Your task to perform on an android device: turn on bluetooth scan Image 0: 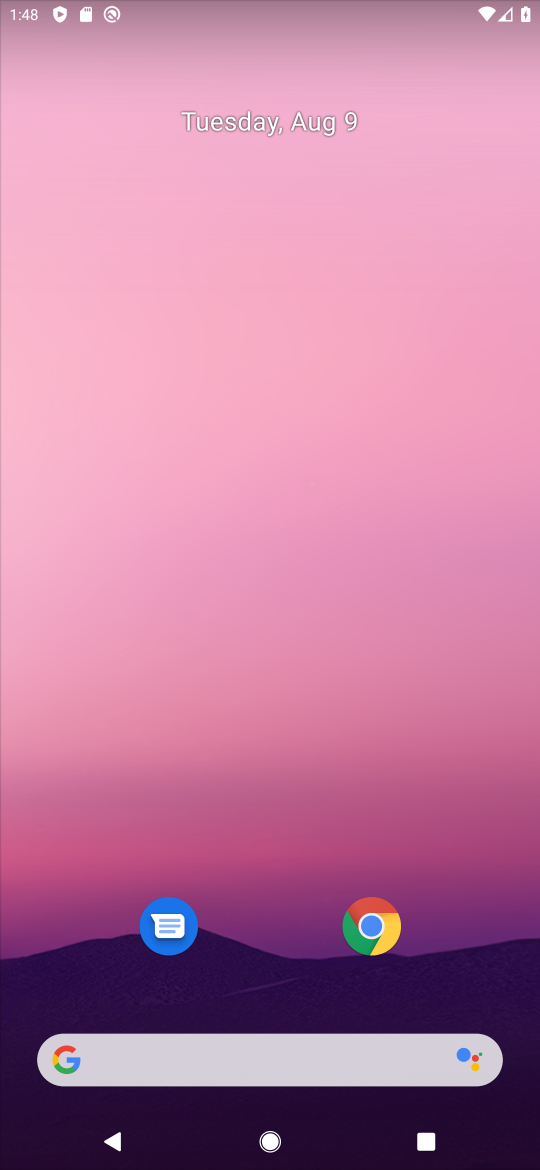
Step 0: click (331, 476)
Your task to perform on an android device: turn on bluetooth scan Image 1: 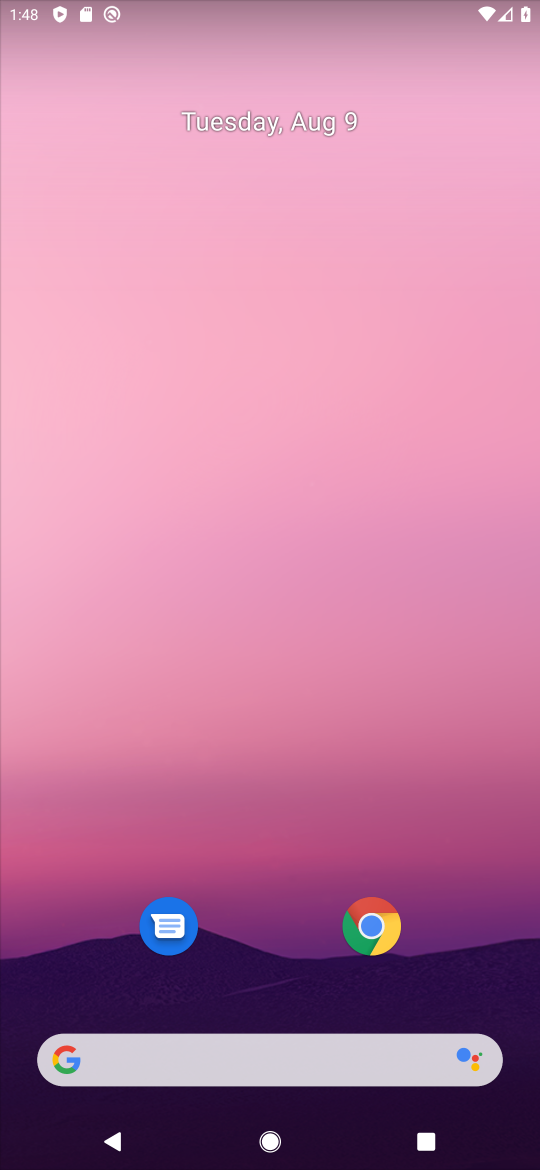
Step 1: drag from (275, 1013) to (317, 706)
Your task to perform on an android device: turn on bluetooth scan Image 2: 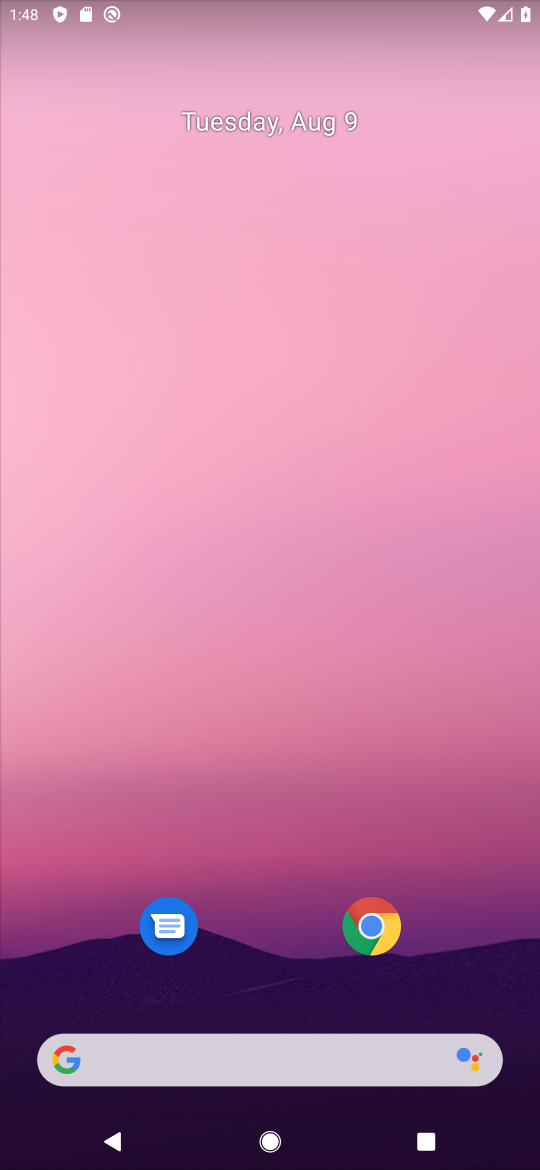
Step 2: drag from (222, 807) to (258, 317)
Your task to perform on an android device: turn on bluetooth scan Image 3: 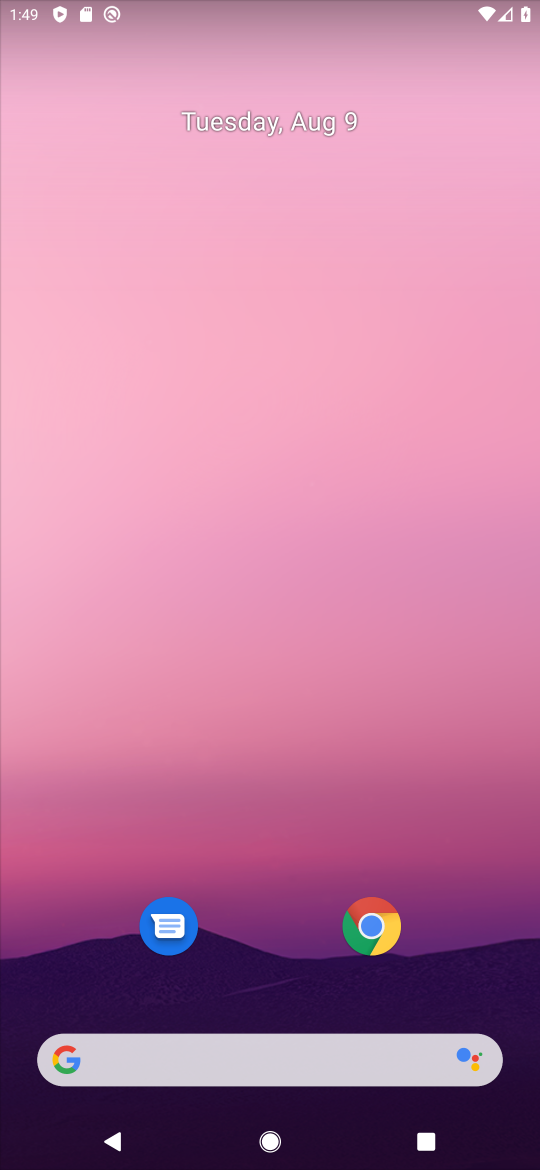
Step 3: drag from (252, 875) to (245, 306)
Your task to perform on an android device: turn on bluetooth scan Image 4: 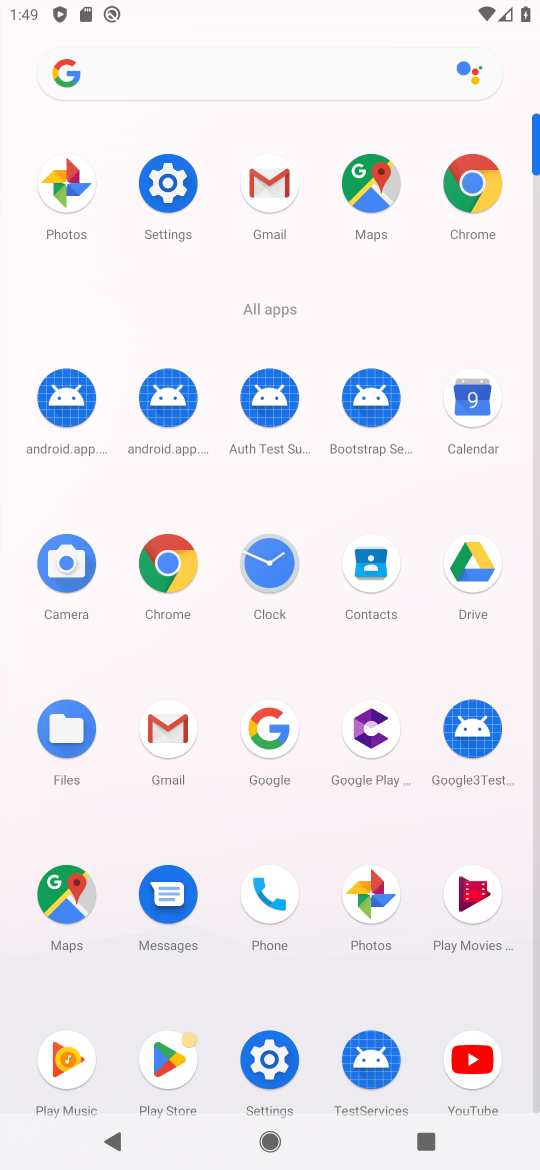
Step 4: click (262, 1045)
Your task to perform on an android device: turn on bluetooth scan Image 5: 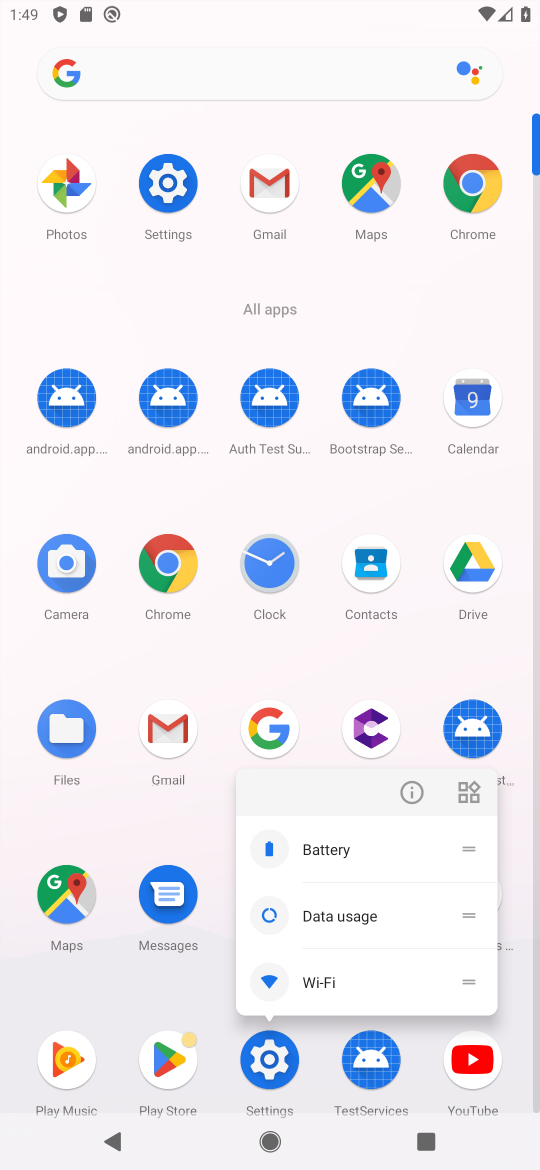
Step 5: click (262, 1045)
Your task to perform on an android device: turn on bluetooth scan Image 6: 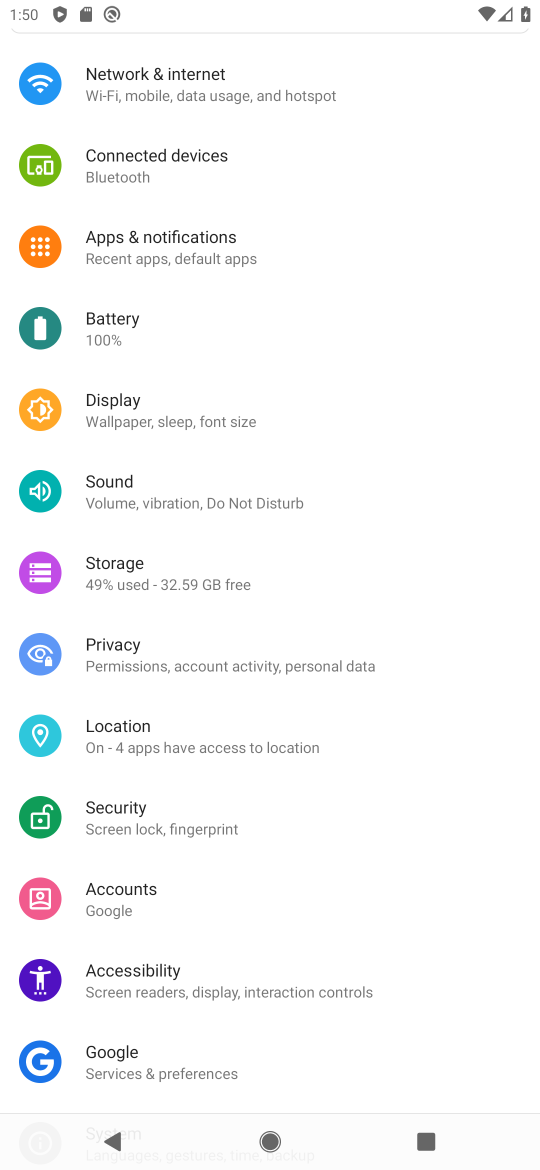
Step 6: drag from (312, 953) to (326, 261)
Your task to perform on an android device: turn on bluetooth scan Image 7: 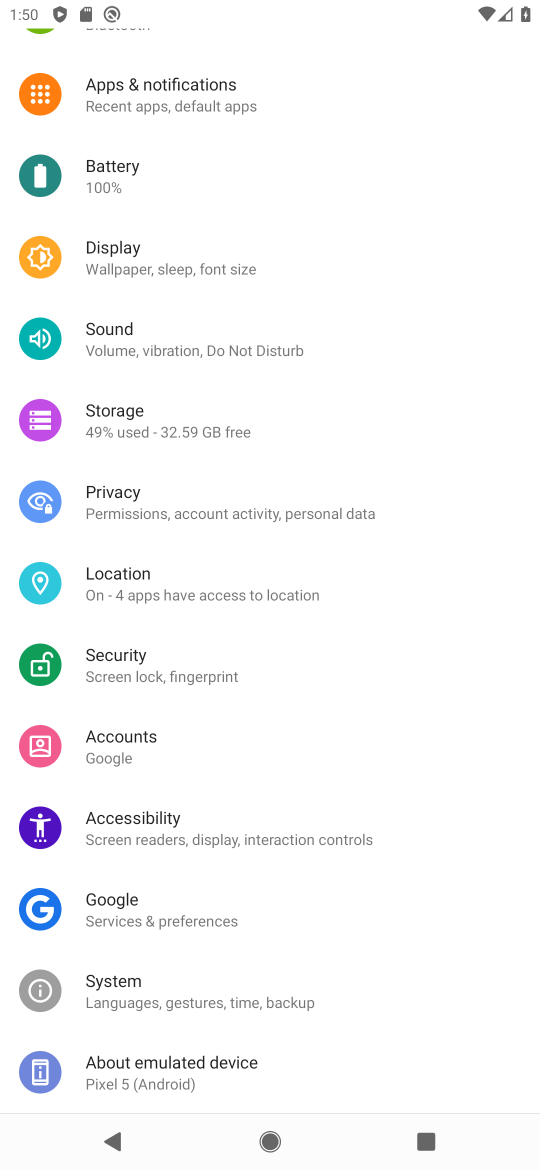
Step 7: click (215, 562)
Your task to perform on an android device: turn on bluetooth scan Image 8: 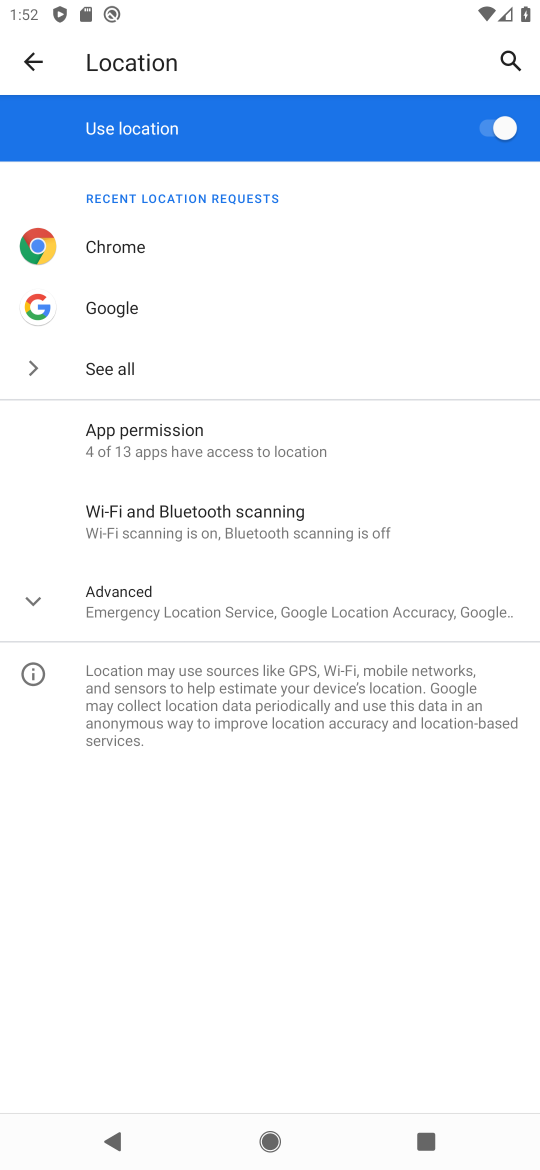
Step 8: click (253, 544)
Your task to perform on an android device: turn on bluetooth scan Image 9: 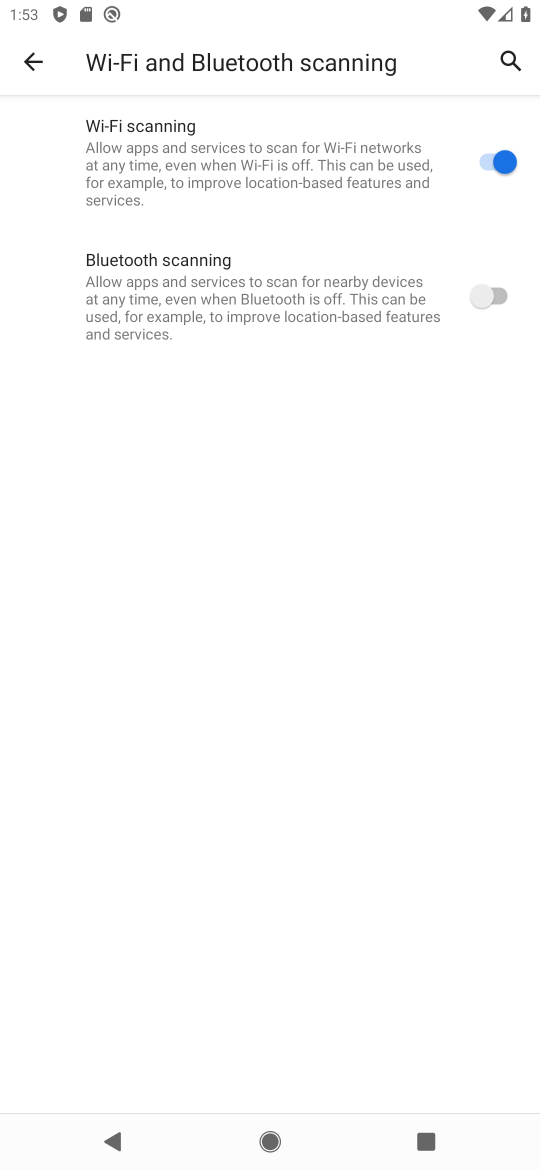
Step 9: click (381, 310)
Your task to perform on an android device: turn on bluetooth scan Image 10: 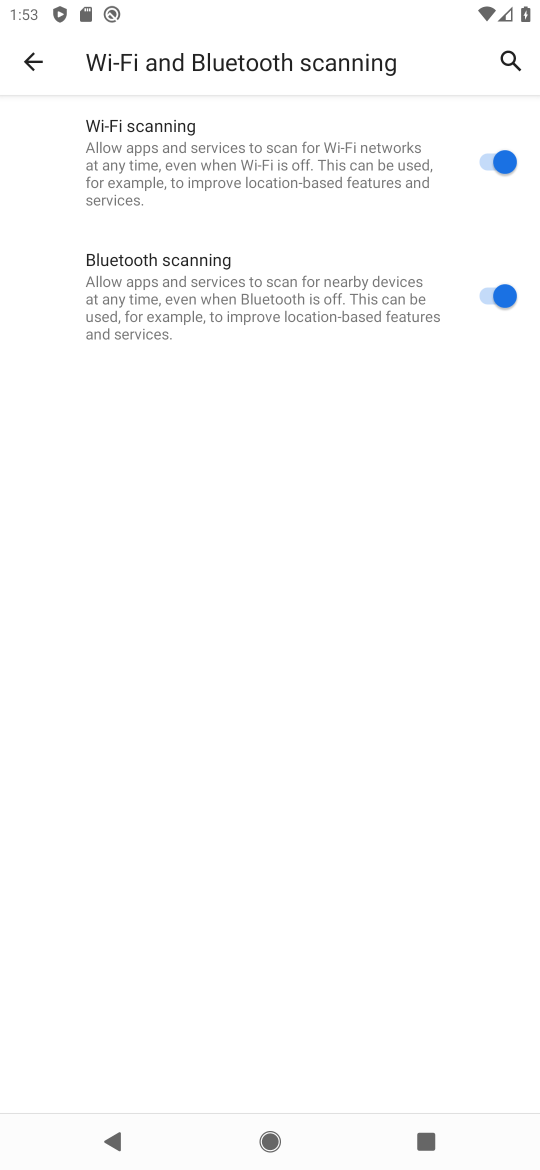
Step 10: task complete